Your task to perform on an android device: Show me popular games on the Play Store Image 0: 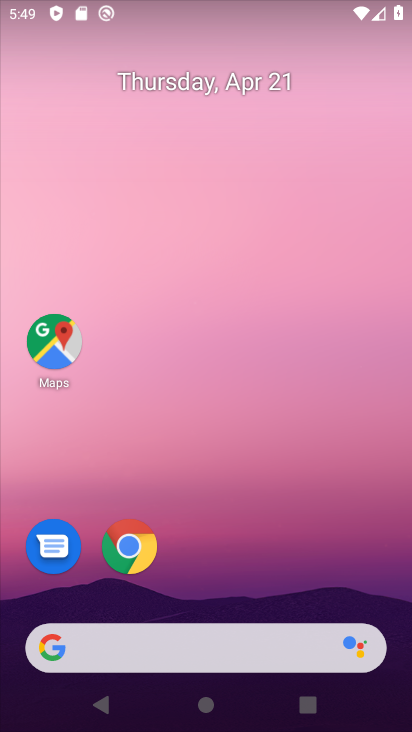
Step 0: drag from (308, 554) to (266, 35)
Your task to perform on an android device: Show me popular games on the Play Store Image 1: 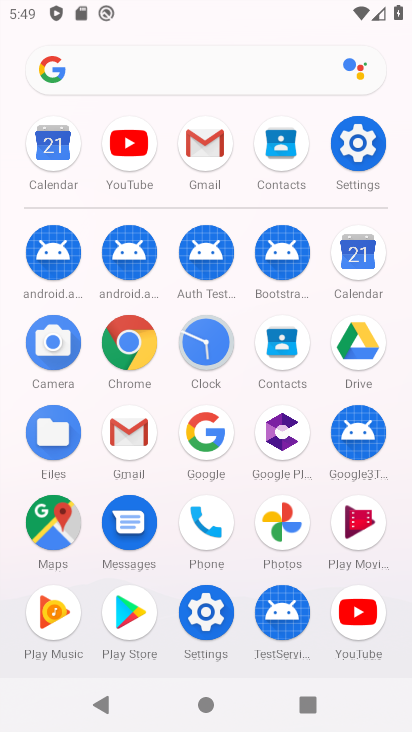
Step 1: click (138, 610)
Your task to perform on an android device: Show me popular games on the Play Store Image 2: 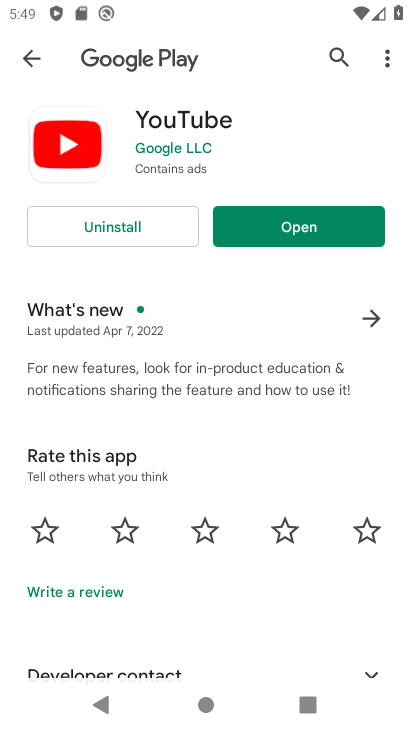
Step 2: click (30, 52)
Your task to perform on an android device: Show me popular games on the Play Store Image 3: 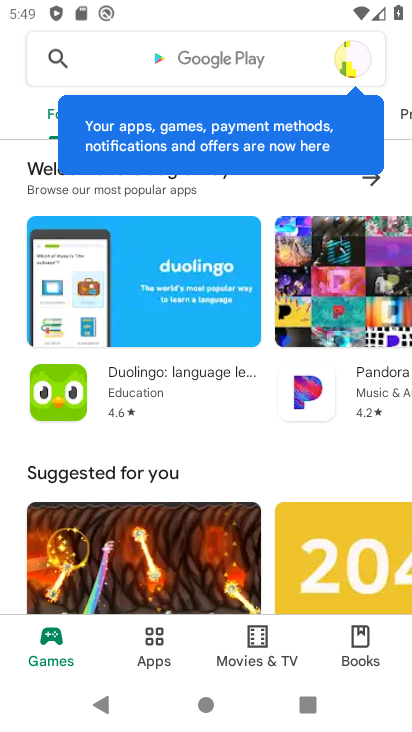
Step 3: click (55, 643)
Your task to perform on an android device: Show me popular games on the Play Store Image 4: 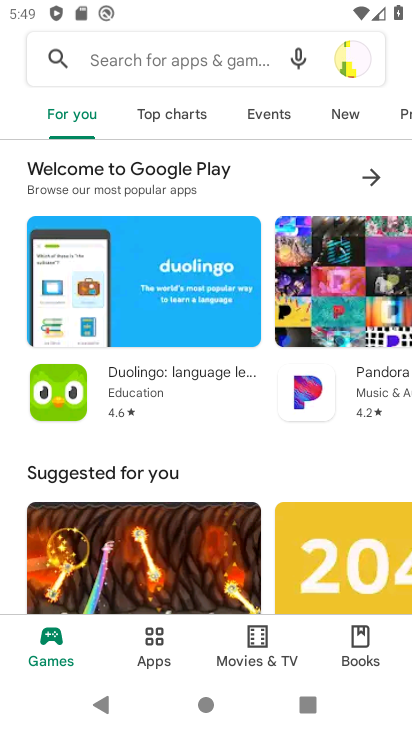
Step 4: click (55, 642)
Your task to perform on an android device: Show me popular games on the Play Store Image 5: 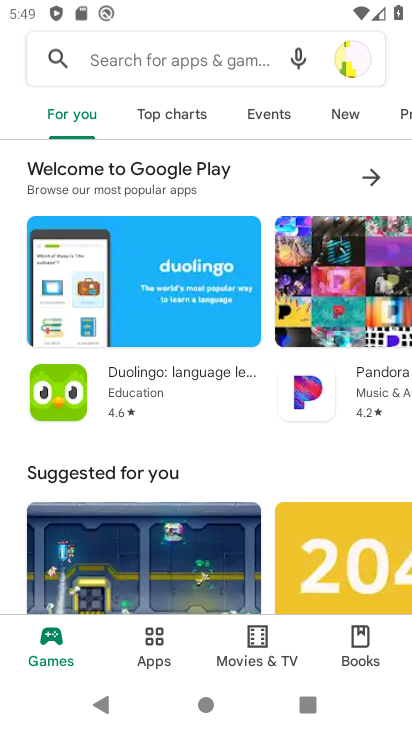
Step 5: drag from (368, 105) to (69, 130)
Your task to perform on an android device: Show me popular games on the Play Store Image 6: 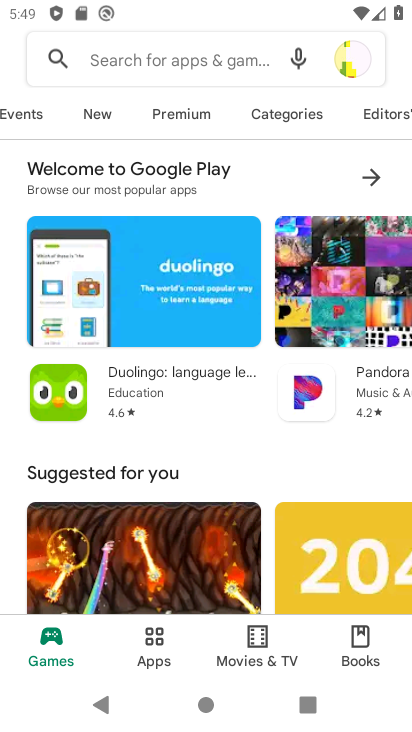
Step 6: drag from (98, 113) to (400, 93)
Your task to perform on an android device: Show me popular games on the Play Store Image 7: 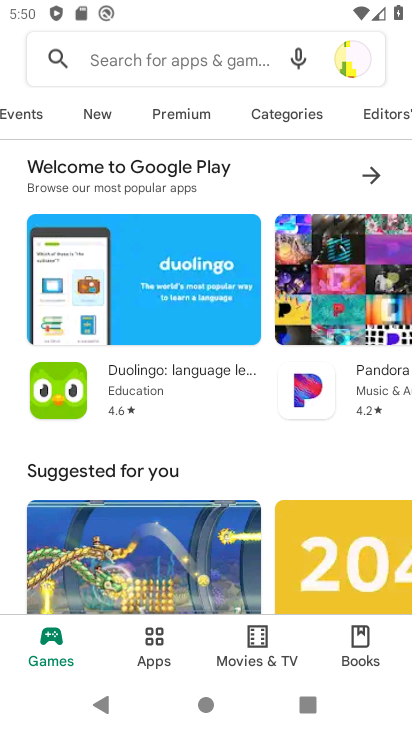
Step 7: drag from (48, 107) to (405, 89)
Your task to perform on an android device: Show me popular games on the Play Store Image 8: 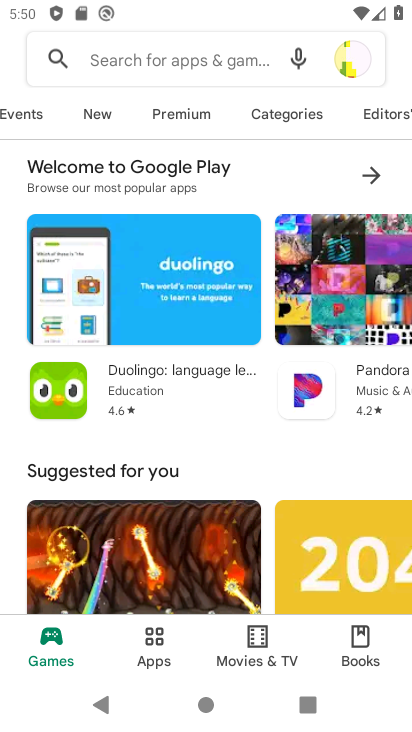
Step 8: drag from (75, 129) to (408, 432)
Your task to perform on an android device: Show me popular games on the Play Store Image 9: 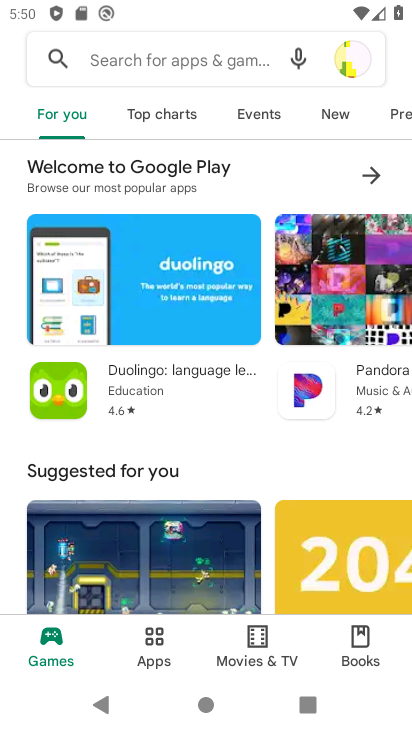
Step 9: click (49, 51)
Your task to perform on an android device: Show me popular games on the Play Store Image 10: 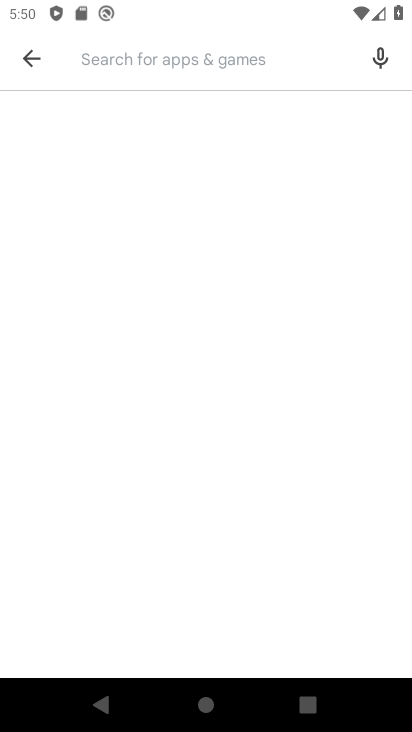
Step 10: type "popular games"
Your task to perform on an android device: Show me popular games on the Play Store Image 11: 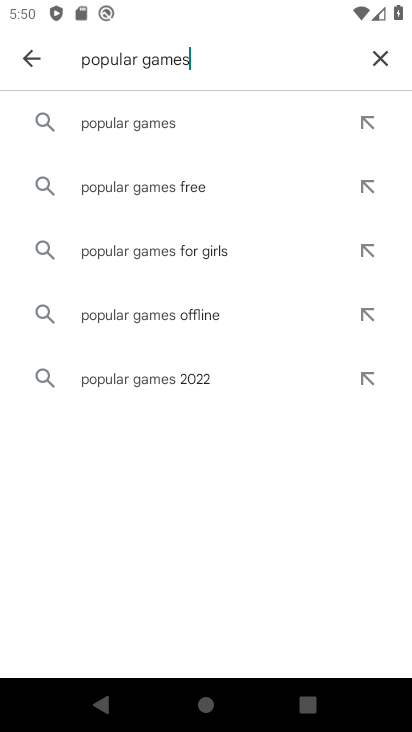
Step 11: click (163, 119)
Your task to perform on an android device: Show me popular games on the Play Store Image 12: 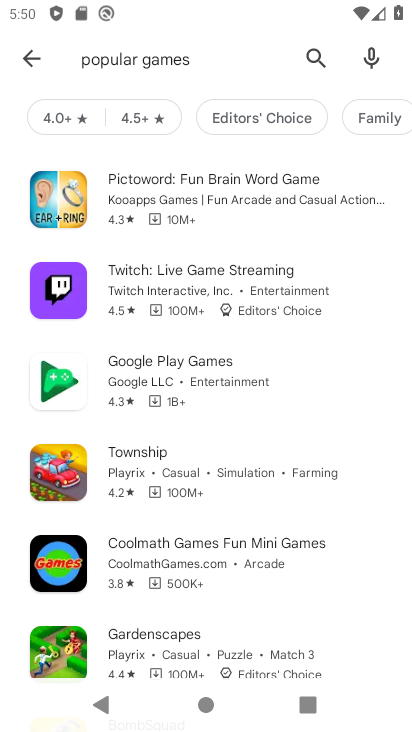
Step 12: task complete